Your task to perform on an android device: open a new tab in the chrome app Image 0: 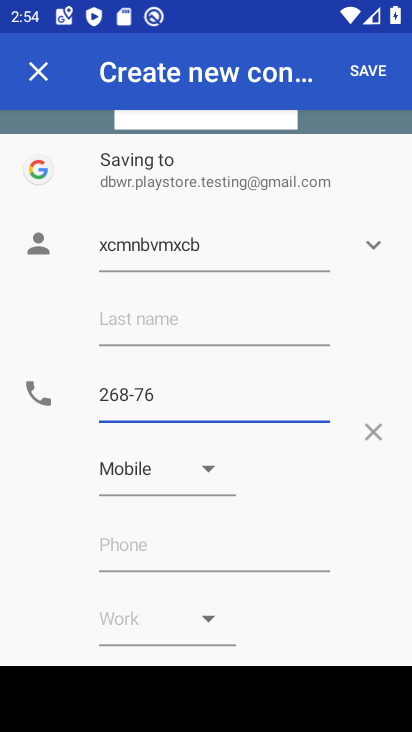
Step 0: press home button
Your task to perform on an android device: open a new tab in the chrome app Image 1: 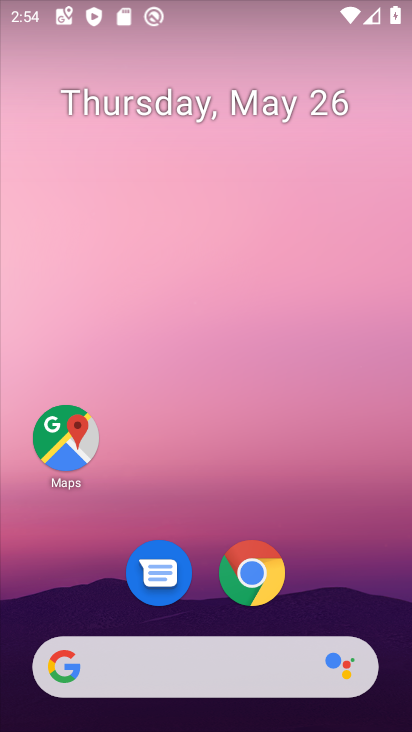
Step 1: click (235, 579)
Your task to perform on an android device: open a new tab in the chrome app Image 2: 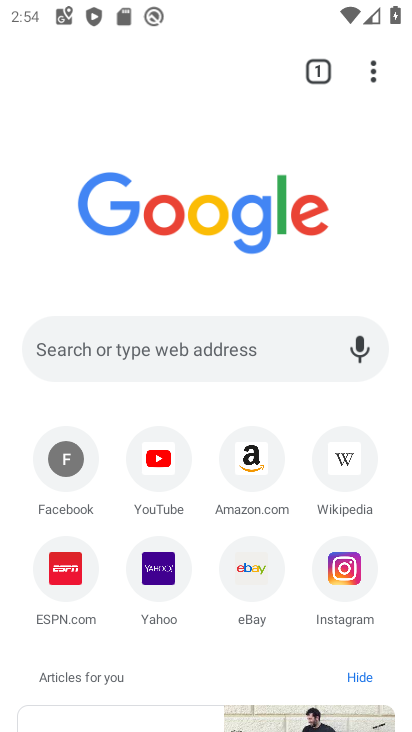
Step 2: task complete